Your task to perform on an android device: open a bookmark in the chrome app Image 0: 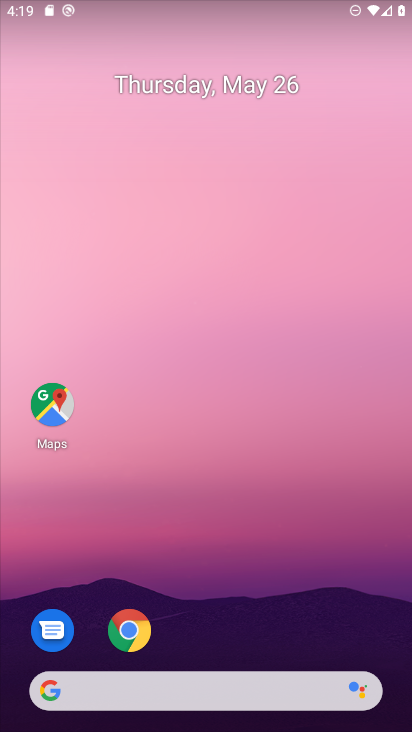
Step 0: click (130, 629)
Your task to perform on an android device: open a bookmark in the chrome app Image 1: 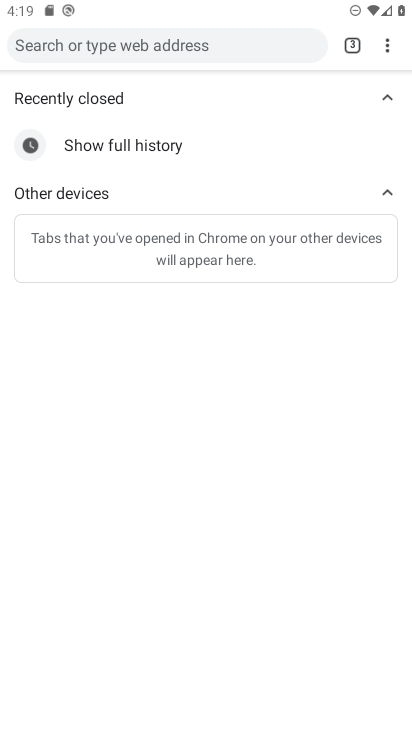
Step 1: click (388, 45)
Your task to perform on an android device: open a bookmark in the chrome app Image 2: 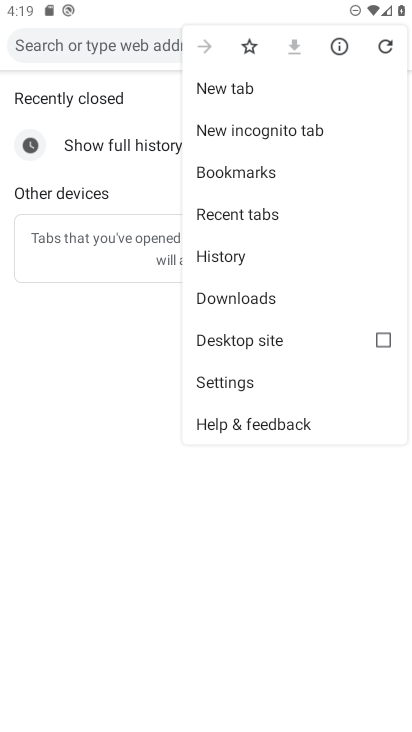
Step 2: click (258, 170)
Your task to perform on an android device: open a bookmark in the chrome app Image 3: 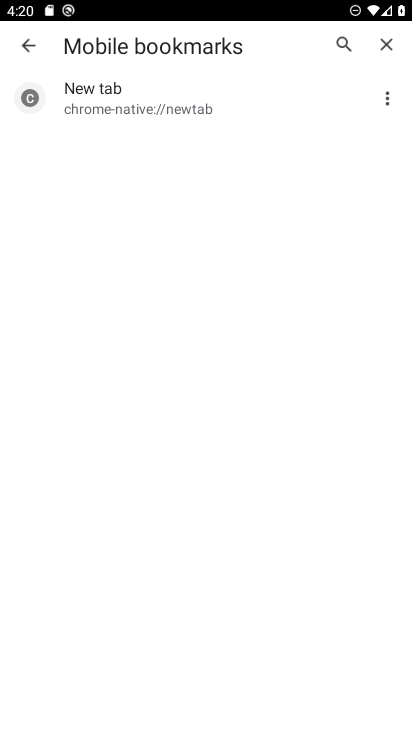
Step 3: task complete